Your task to perform on an android device: Open wifi settings Image 0: 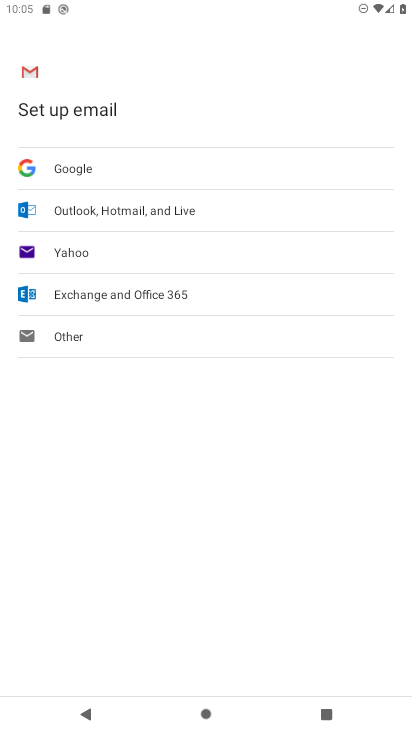
Step 0: press home button
Your task to perform on an android device: Open wifi settings Image 1: 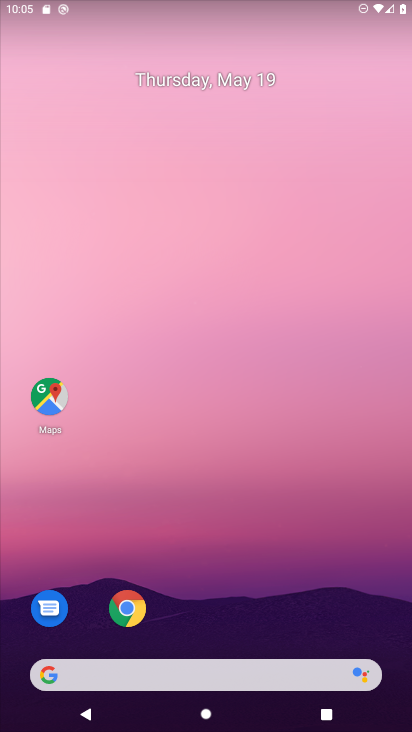
Step 1: drag from (228, 633) to (281, 164)
Your task to perform on an android device: Open wifi settings Image 2: 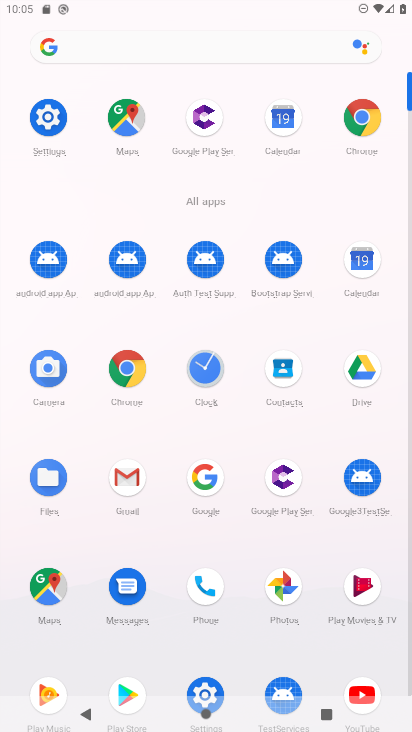
Step 2: click (56, 125)
Your task to perform on an android device: Open wifi settings Image 3: 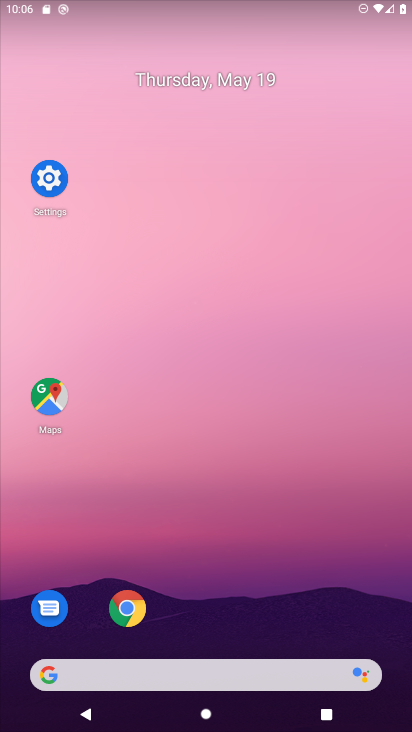
Step 3: click (49, 173)
Your task to perform on an android device: Open wifi settings Image 4: 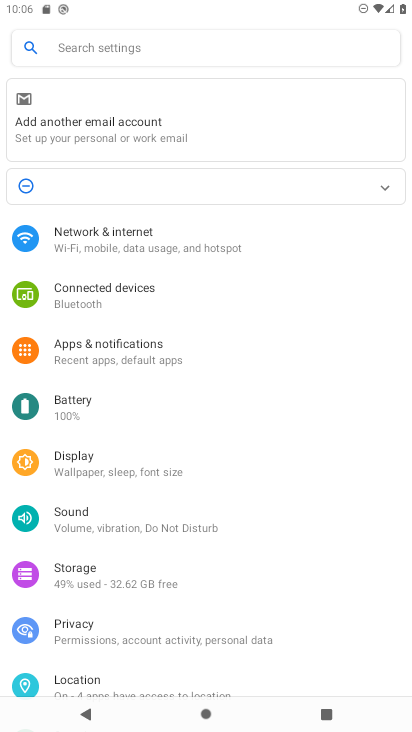
Step 4: click (127, 248)
Your task to perform on an android device: Open wifi settings Image 5: 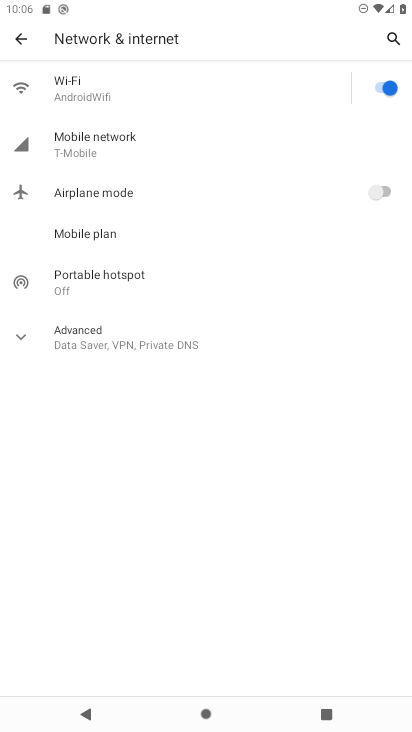
Step 5: click (195, 90)
Your task to perform on an android device: Open wifi settings Image 6: 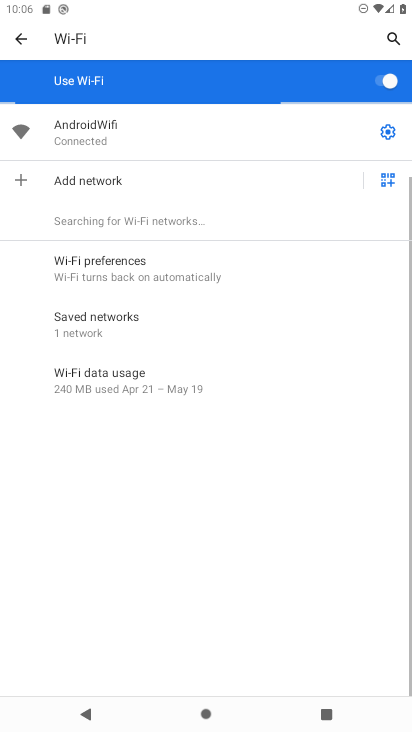
Step 6: click (385, 131)
Your task to perform on an android device: Open wifi settings Image 7: 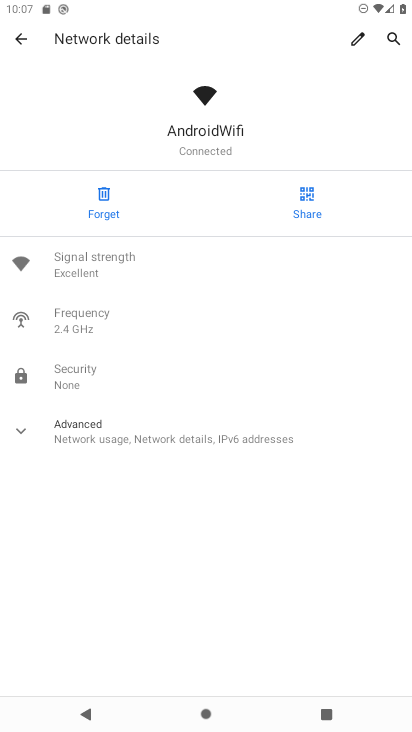
Step 7: task complete